Your task to perform on an android device: Open Amazon Image 0: 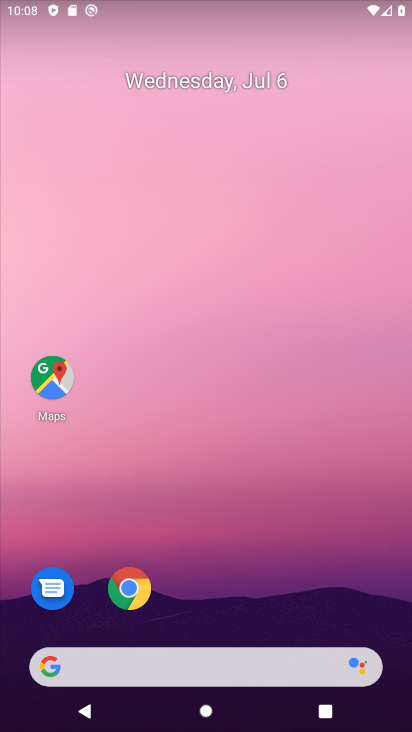
Step 0: click (124, 587)
Your task to perform on an android device: Open Amazon Image 1: 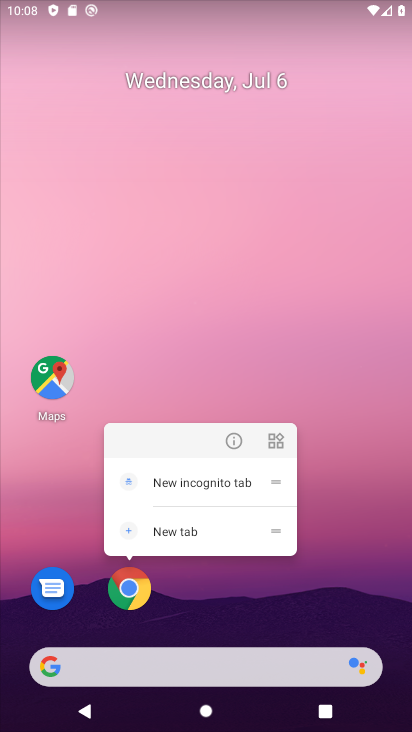
Step 1: click (132, 597)
Your task to perform on an android device: Open Amazon Image 2: 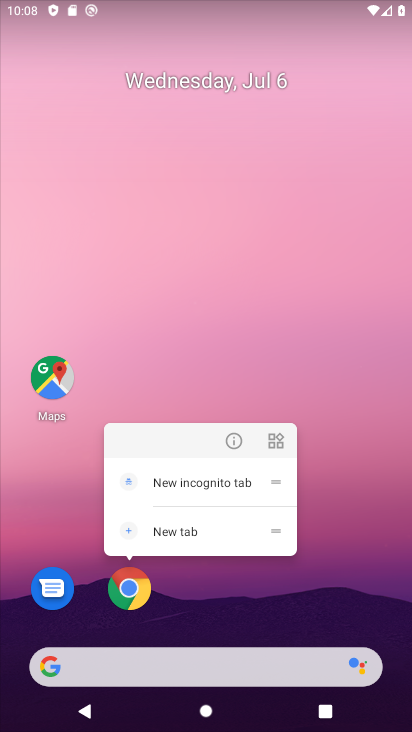
Step 2: click (126, 595)
Your task to perform on an android device: Open Amazon Image 3: 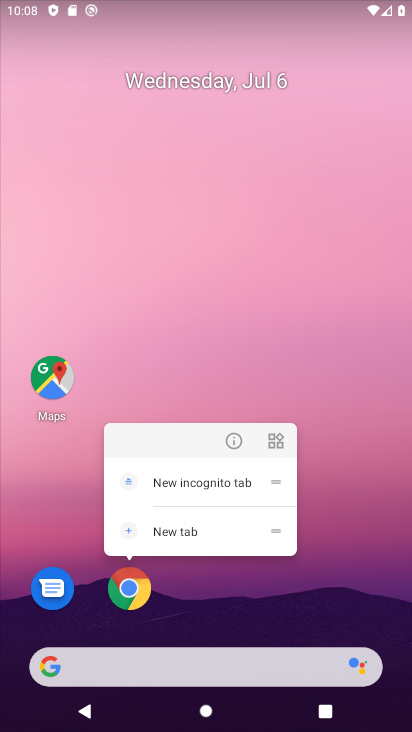
Step 3: click (123, 589)
Your task to perform on an android device: Open Amazon Image 4: 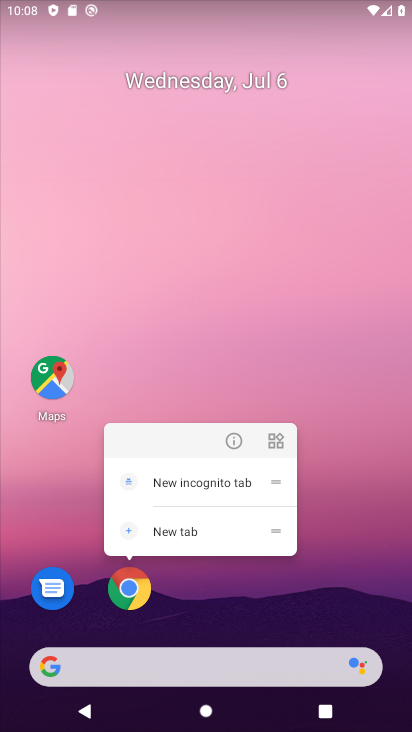
Step 4: click (137, 583)
Your task to perform on an android device: Open Amazon Image 5: 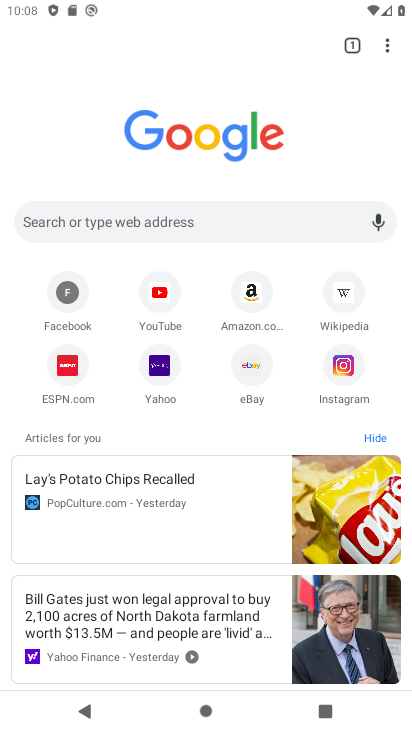
Step 5: click (252, 293)
Your task to perform on an android device: Open Amazon Image 6: 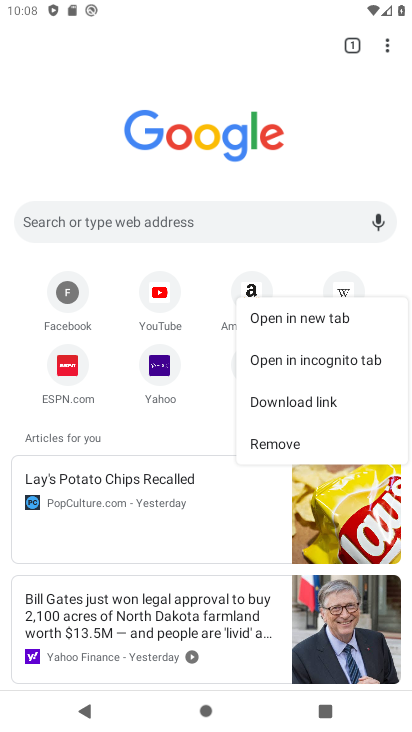
Step 6: click (248, 289)
Your task to perform on an android device: Open Amazon Image 7: 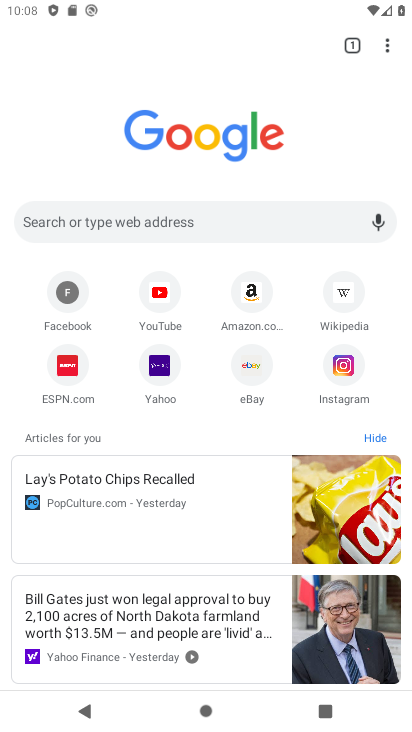
Step 7: click (251, 297)
Your task to perform on an android device: Open Amazon Image 8: 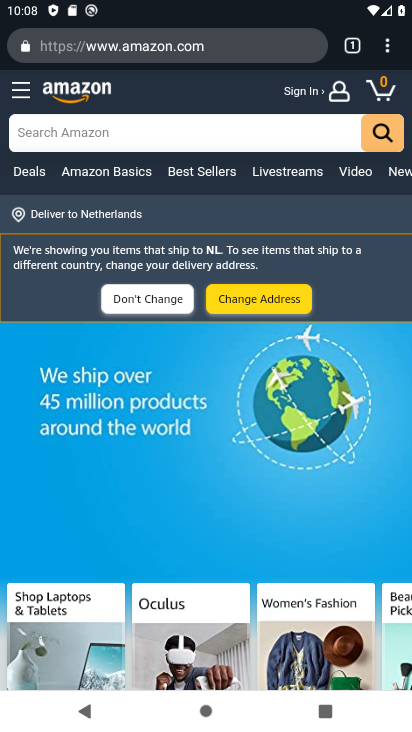
Step 8: task complete